Your task to perform on an android device: change the clock display to digital Image 0: 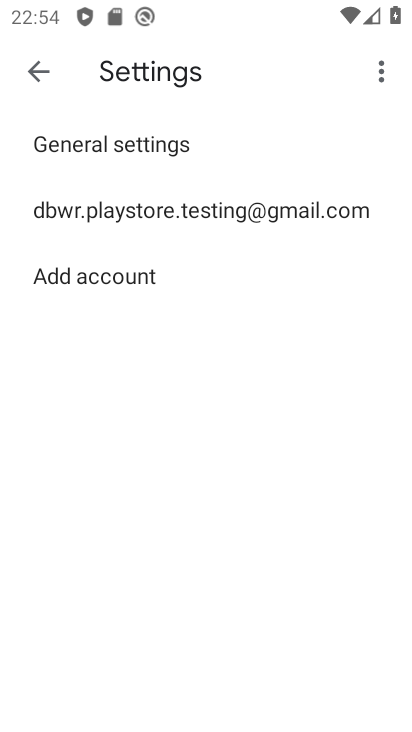
Step 0: press home button
Your task to perform on an android device: change the clock display to digital Image 1: 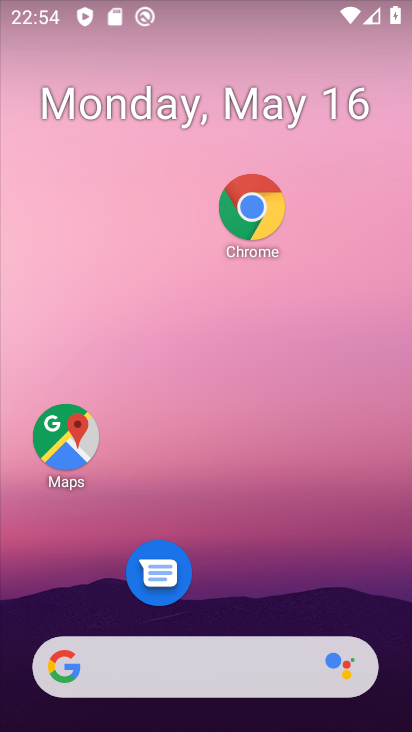
Step 1: drag from (298, 671) to (259, 21)
Your task to perform on an android device: change the clock display to digital Image 2: 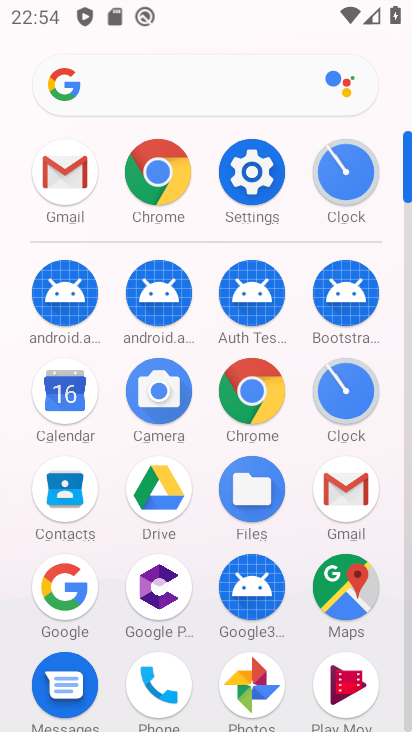
Step 2: click (352, 382)
Your task to perform on an android device: change the clock display to digital Image 3: 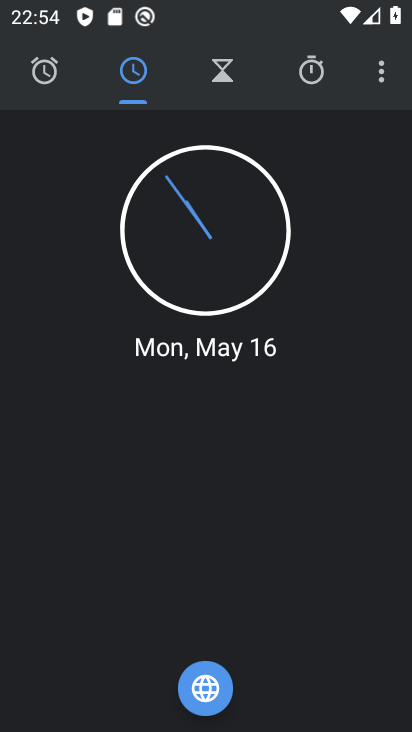
Step 3: click (383, 69)
Your task to perform on an android device: change the clock display to digital Image 4: 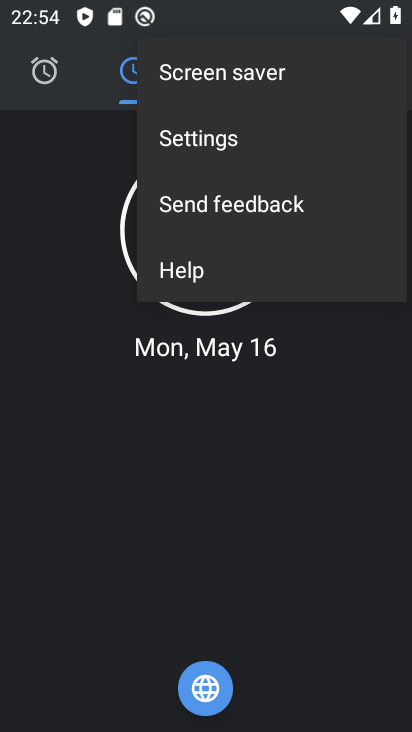
Step 4: click (196, 142)
Your task to perform on an android device: change the clock display to digital Image 5: 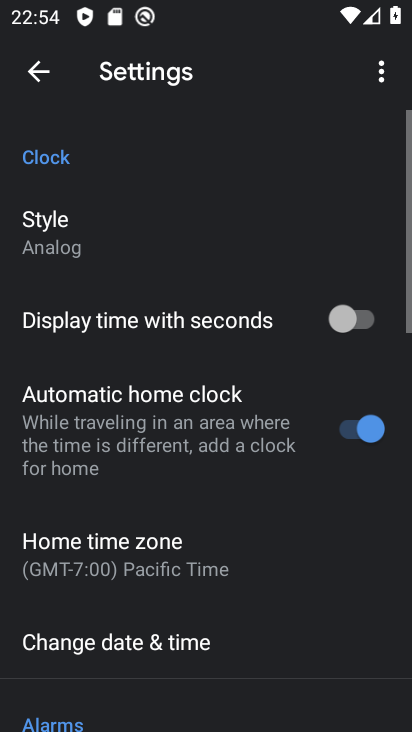
Step 5: click (250, 235)
Your task to perform on an android device: change the clock display to digital Image 6: 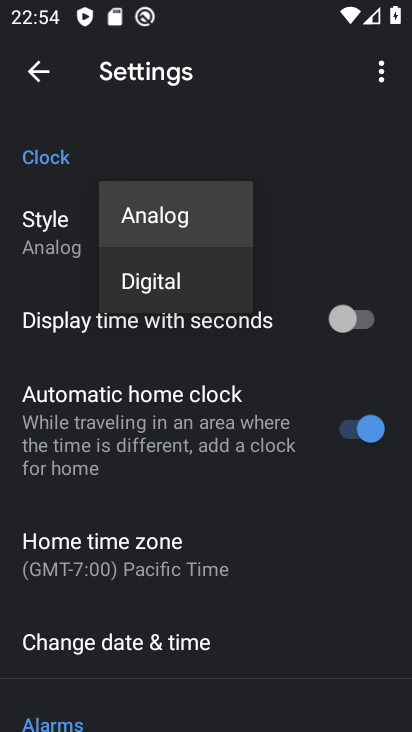
Step 6: click (189, 289)
Your task to perform on an android device: change the clock display to digital Image 7: 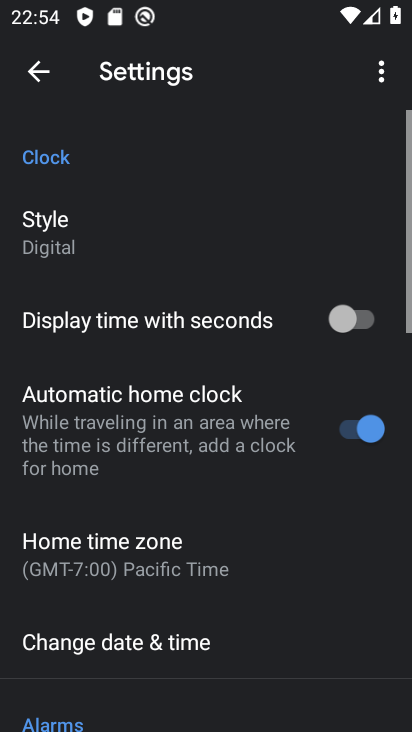
Step 7: task complete